Your task to perform on an android device: add a contact Image 0: 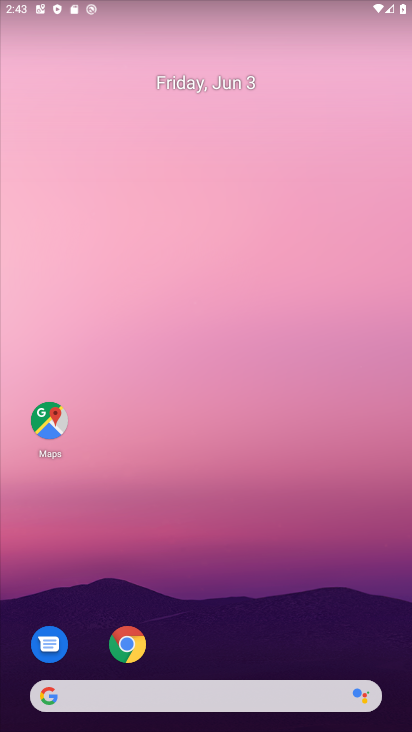
Step 0: drag from (219, 669) to (227, 265)
Your task to perform on an android device: add a contact Image 1: 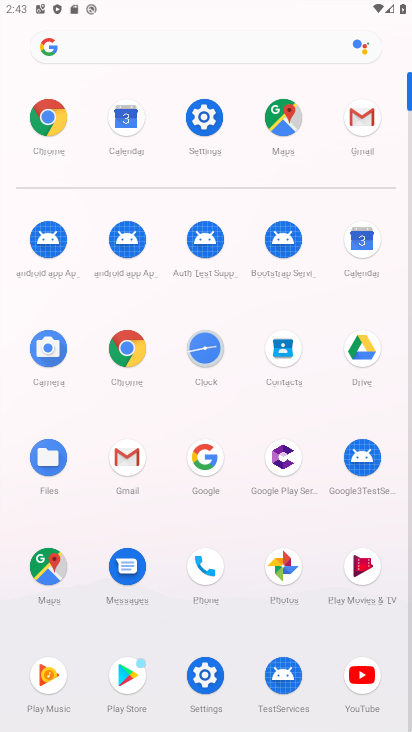
Step 1: click (276, 357)
Your task to perform on an android device: add a contact Image 2: 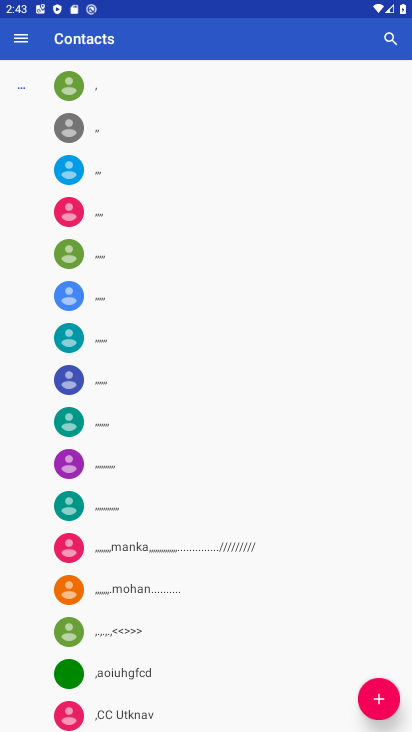
Step 2: click (374, 692)
Your task to perform on an android device: add a contact Image 3: 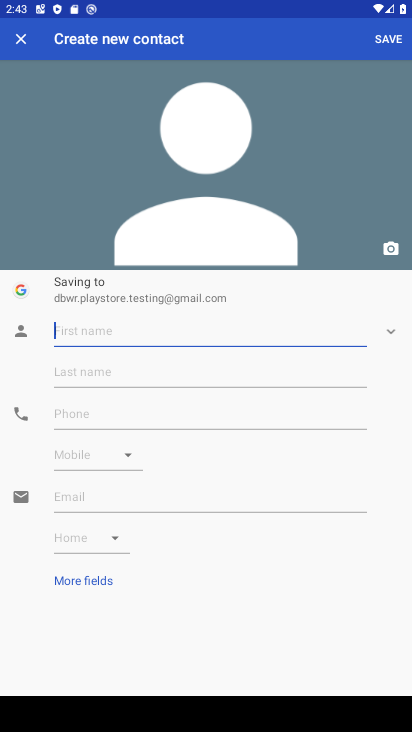
Step 3: type "gdrfg"
Your task to perform on an android device: add a contact Image 4: 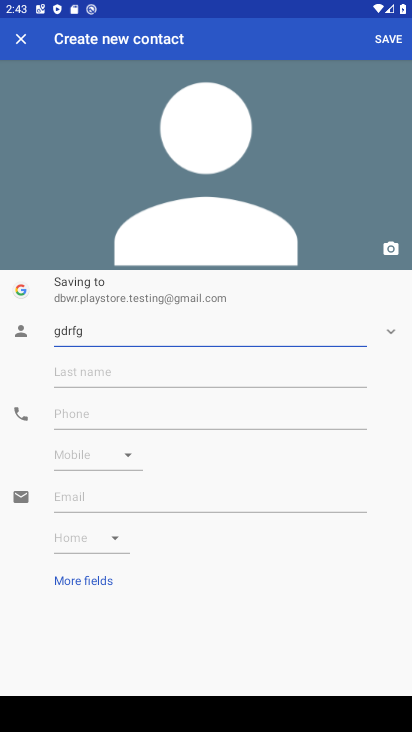
Step 4: click (81, 417)
Your task to perform on an android device: add a contact Image 5: 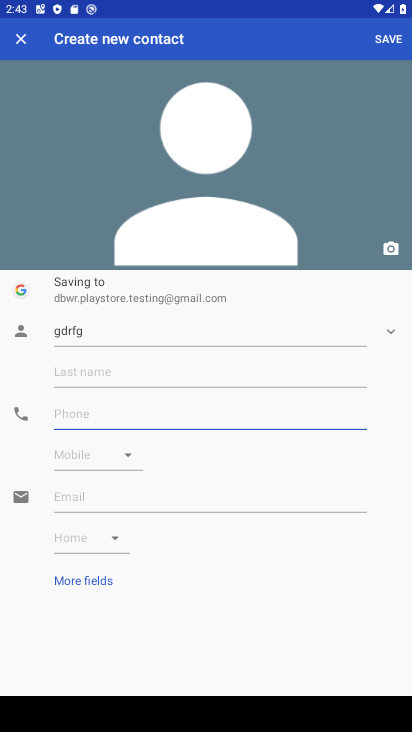
Step 5: type "96565"
Your task to perform on an android device: add a contact Image 6: 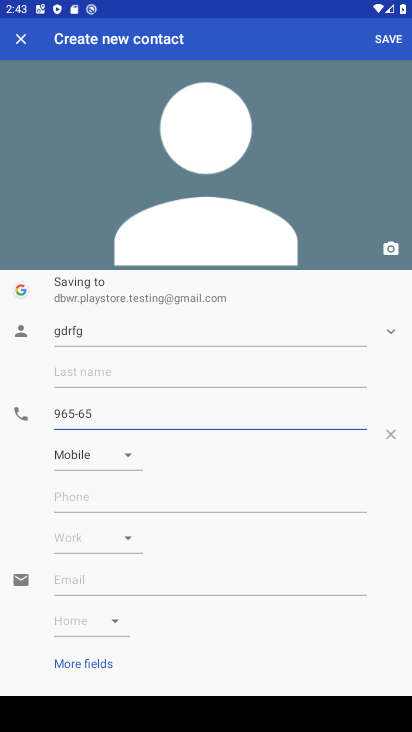
Step 6: click (385, 41)
Your task to perform on an android device: add a contact Image 7: 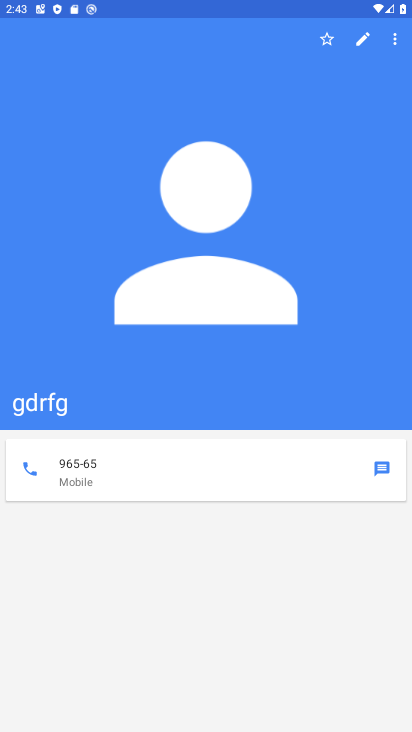
Step 7: task complete